Your task to perform on an android device: see tabs open on other devices in the chrome app Image 0: 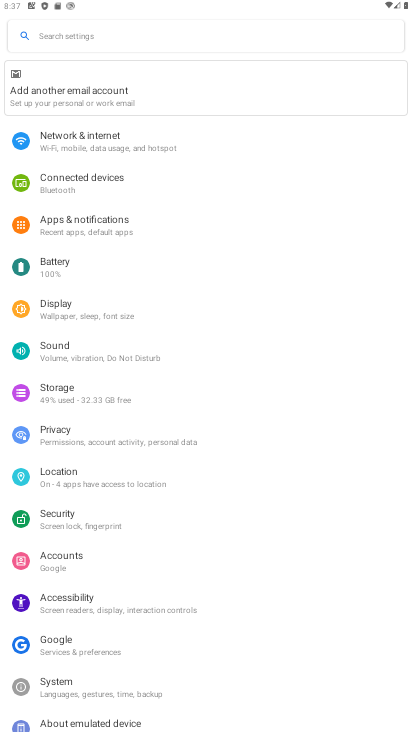
Step 0: press home button
Your task to perform on an android device: see tabs open on other devices in the chrome app Image 1: 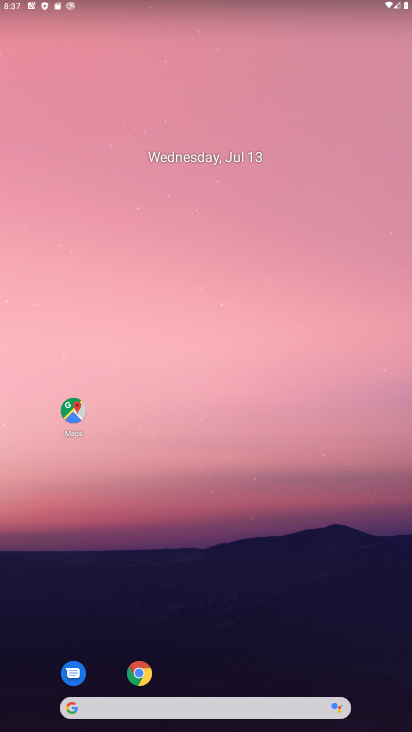
Step 1: drag from (275, 530) to (286, 188)
Your task to perform on an android device: see tabs open on other devices in the chrome app Image 2: 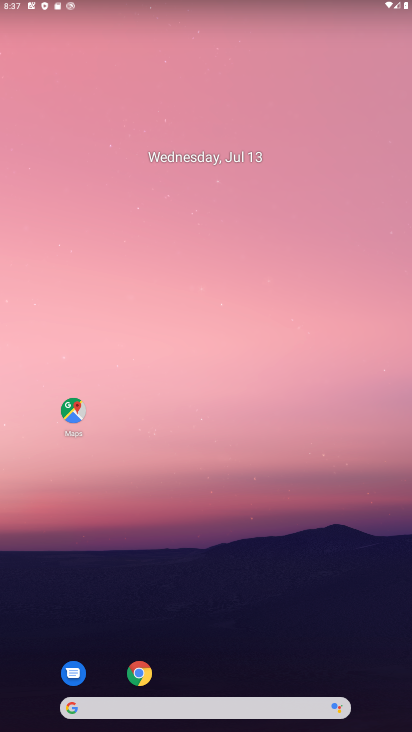
Step 2: drag from (279, 666) to (284, 146)
Your task to perform on an android device: see tabs open on other devices in the chrome app Image 3: 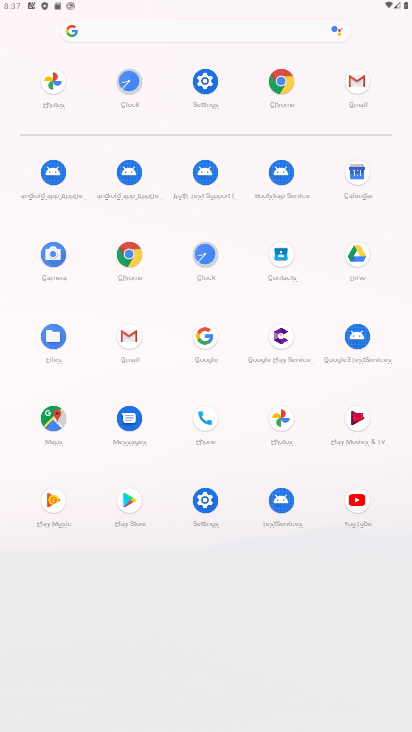
Step 3: click (128, 252)
Your task to perform on an android device: see tabs open on other devices in the chrome app Image 4: 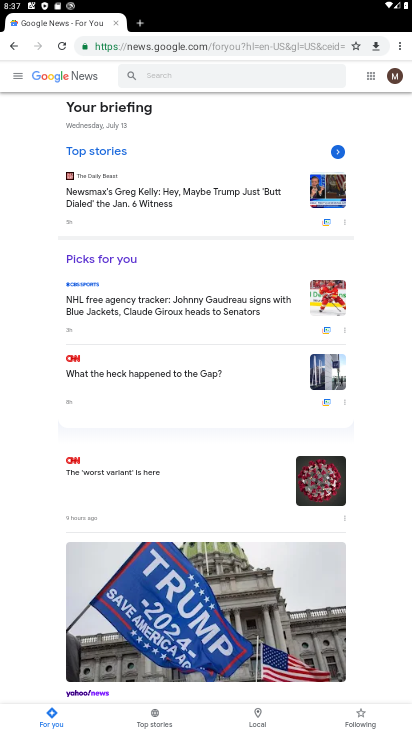
Step 4: task complete